Your task to perform on an android device: Search for Mexican restaurants on Maps Image 0: 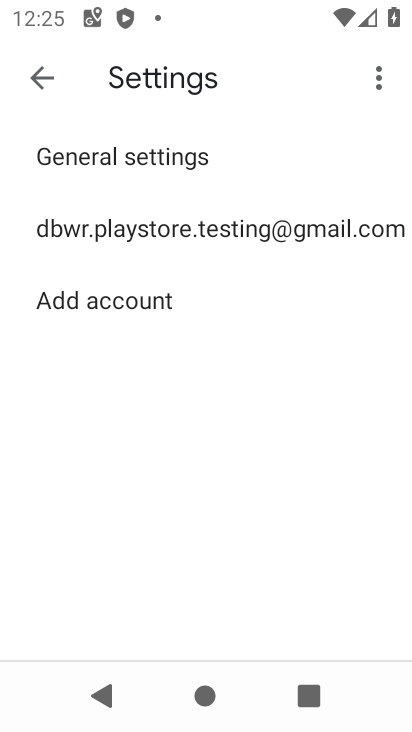
Step 0: press home button
Your task to perform on an android device: Search for Mexican restaurants on Maps Image 1: 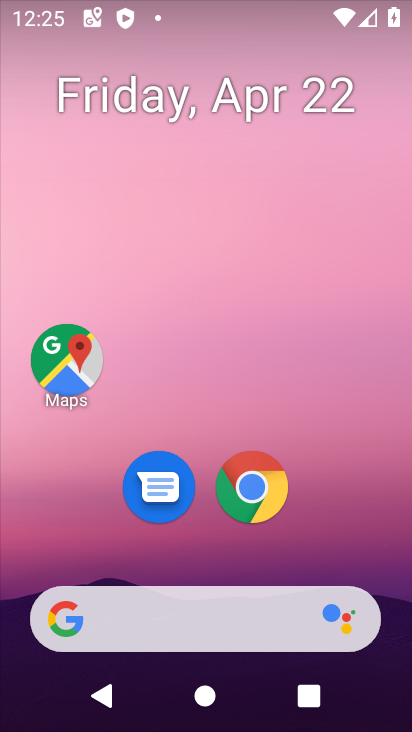
Step 1: click (64, 374)
Your task to perform on an android device: Search for Mexican restaurants on Maps Image 2: 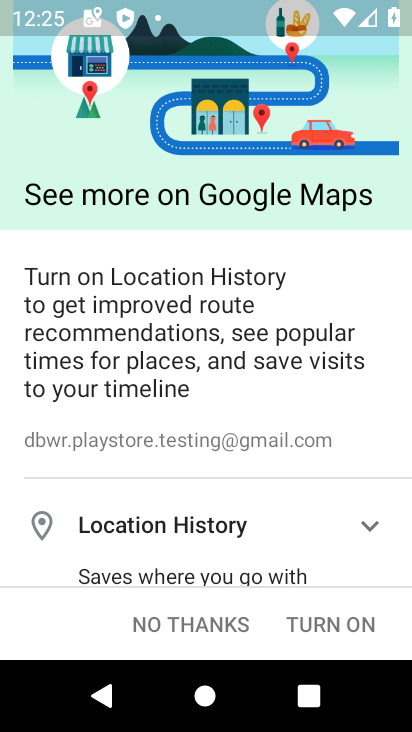
Step 2: click (301, 628)
Your task to perform on an android device: Search for Mexican restaurants on Maps Image 3: 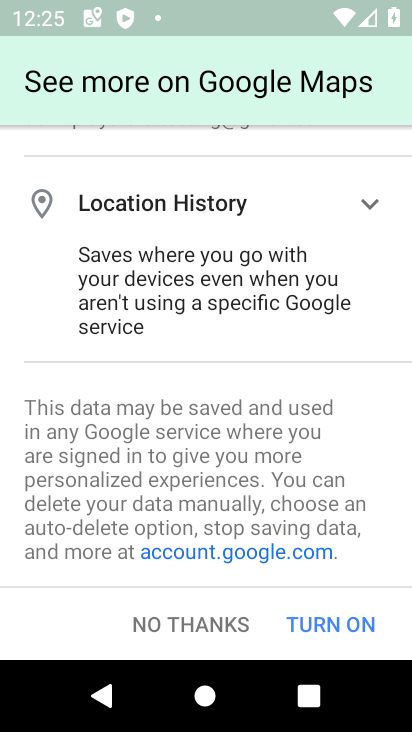
Step 3: click (314, 621)
Your task to perform on an android device: Search for Mexican restaurants on Maps Image 4: 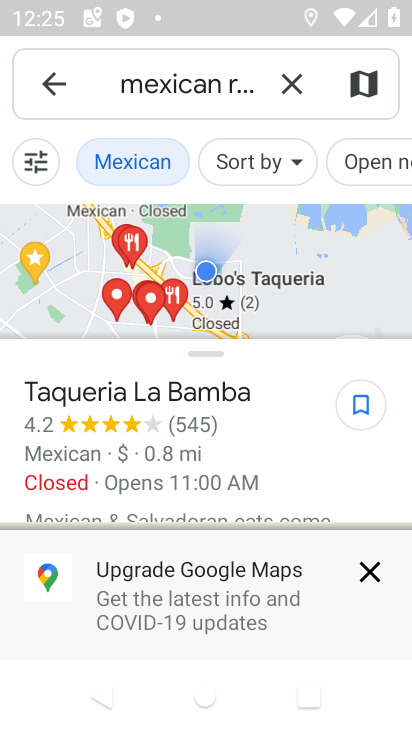
Step 4: task complete